Your task to perform on an android device: Open the calendar and show me this week's events Image 0: 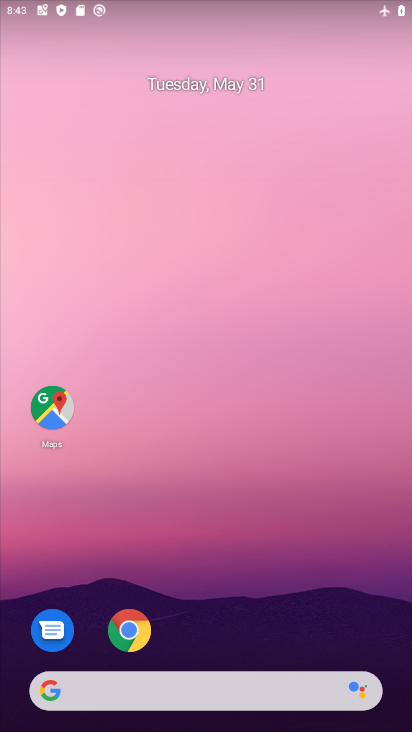
Step 0: drag from (289, 611) to (309, 271)
Your task to perform on an android device: Open the calendar and show me this week's events Image 1: 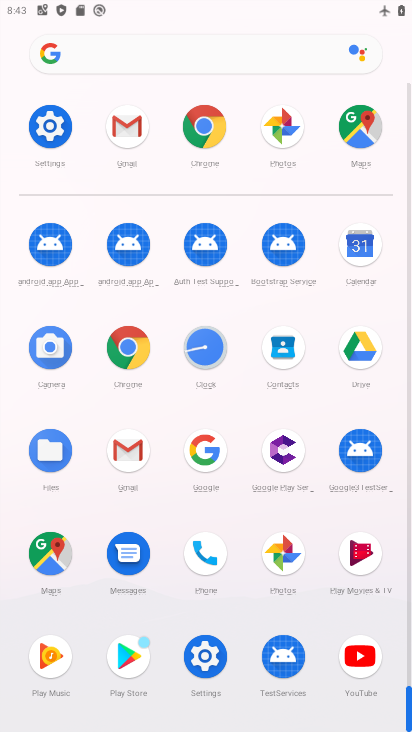
Step 1: click (361, 245)
Your task to perform on an android device: Open the calendar and show me this week's events Image 2: 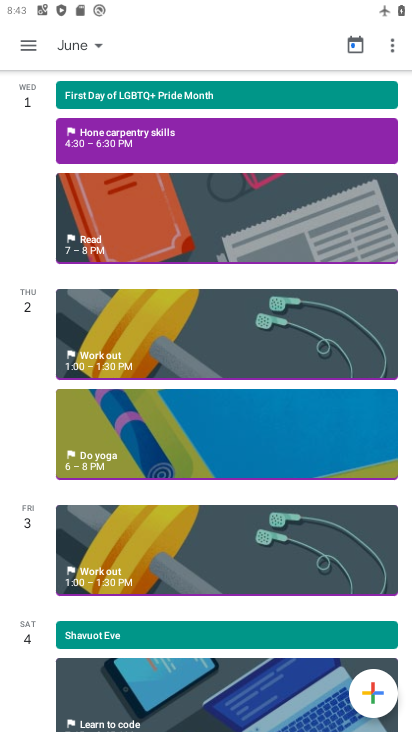
Step 2: click (23, 39)
Your task to perform on an android device: Open the calendar and show me this week's events Image 3: 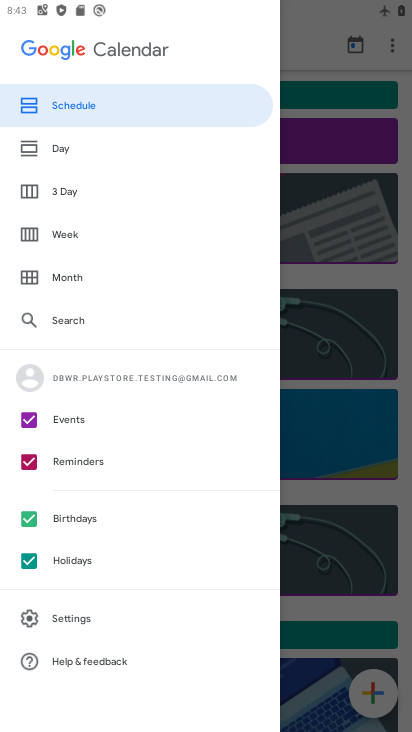
Step 3: click (74, 238)
Your task to perform on an android device: Open the calendar and show me this week's events Image 4: 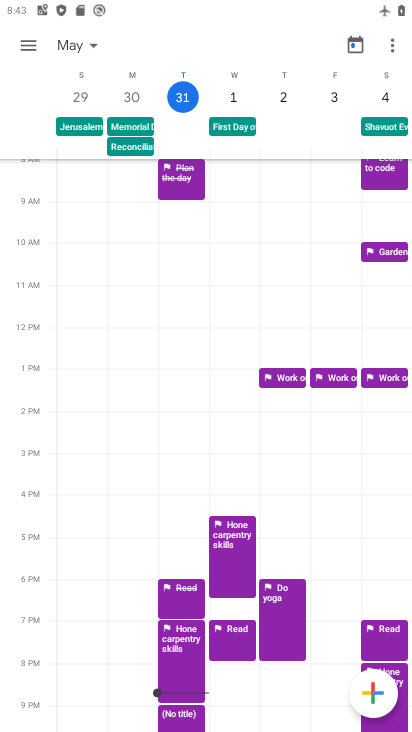
Step 4: task complete